Your task to perform on an android device: Show me recent news Image 0: 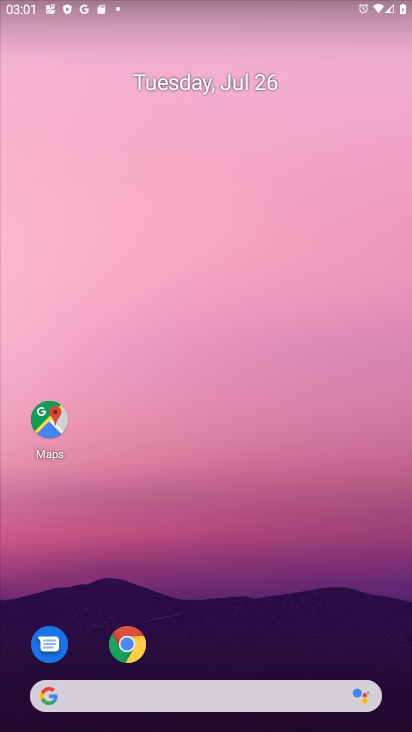
Step 0: drag from (203, 676) to (162, 27)
Your task to perform on an android device: Show me recent news Image 1: 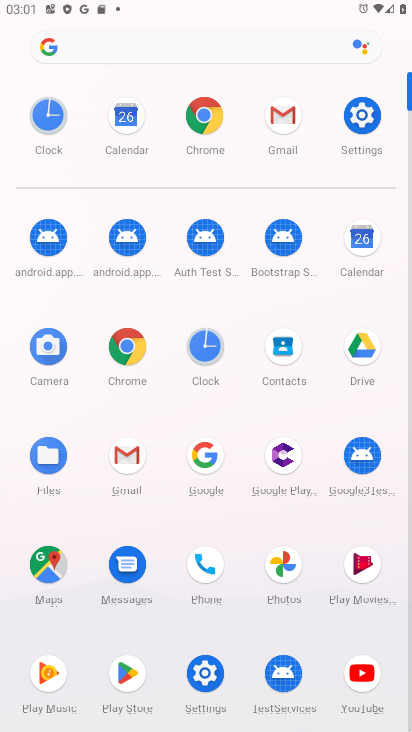
Step 1: click (212, 473)
Your task to perform on an android device: Show me recent news Image 2: 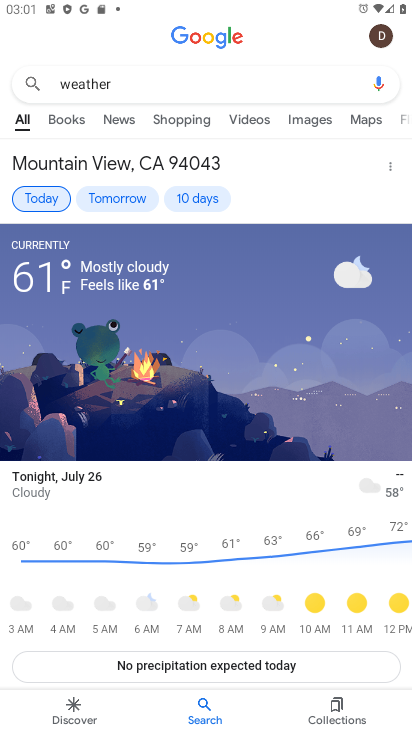
Step 2: click (204, 709)
Your task to perform on an android device: Show me recent news Image 3: 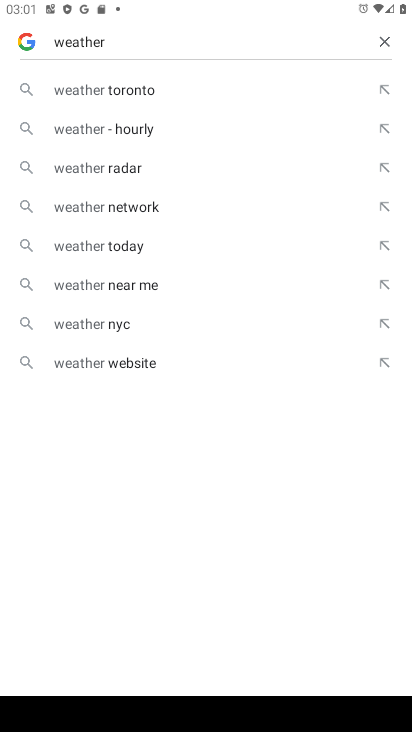
Step 3: click (382, 38)
Your task to perform on an android device: Show me recent news Image 4: 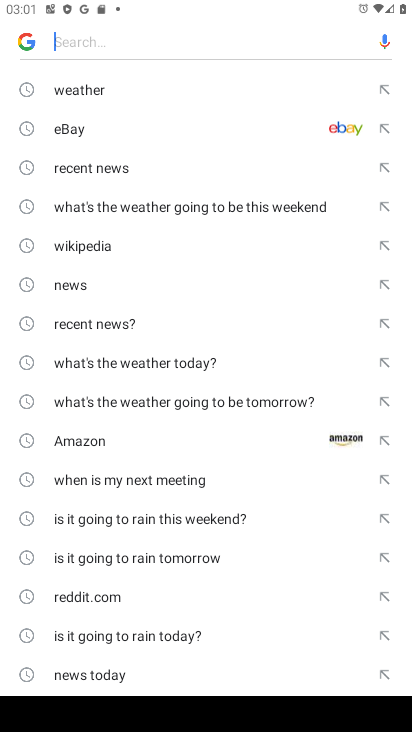
Step 4: click (102, 176)
Your task to perform on an android device: Show me recent news Image 5: 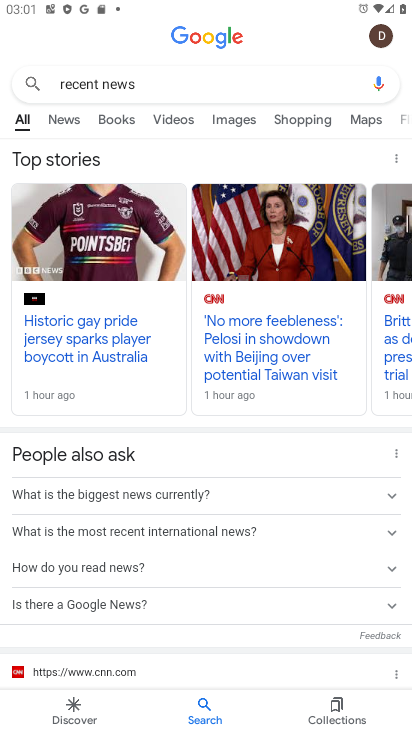
Step 5: task complete